Your task to perform on an android device: turn off improve location accuracy Image 0: 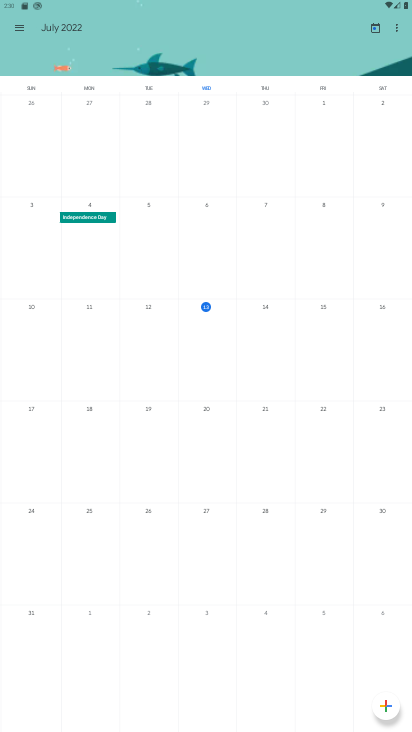
Step 0: press home button
Your task to perform on an android device: turn off improve location accuracy Image 1: 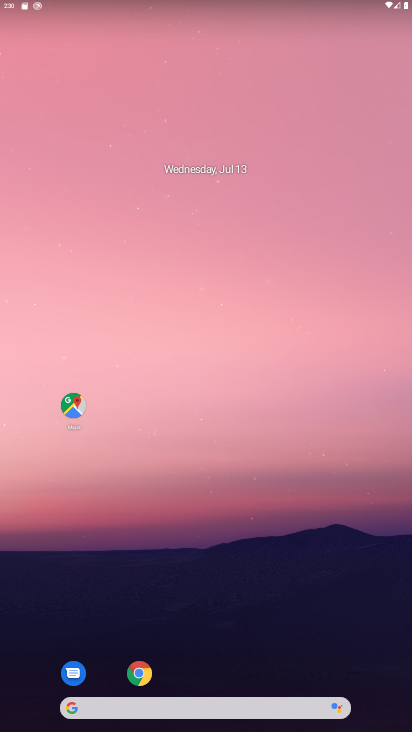
Step 1: drag from (209, 677) to (232, 159)
Your task to perform on an android device: turn off improve location accuracy Image 2: 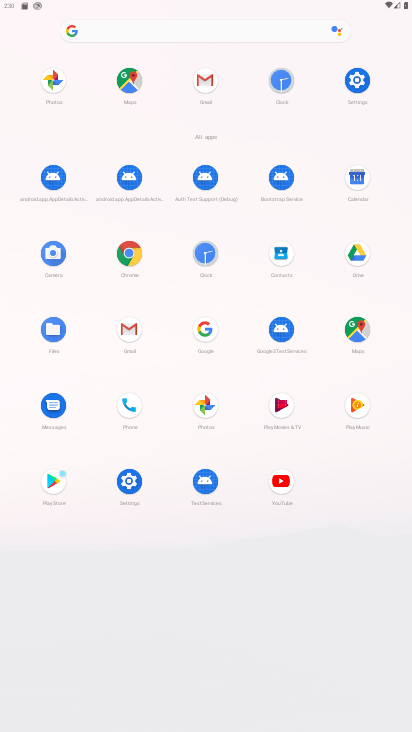
Step 2: click (132, 482)
Your task to perform on an android device: turn off improve location accuracy Image 3: 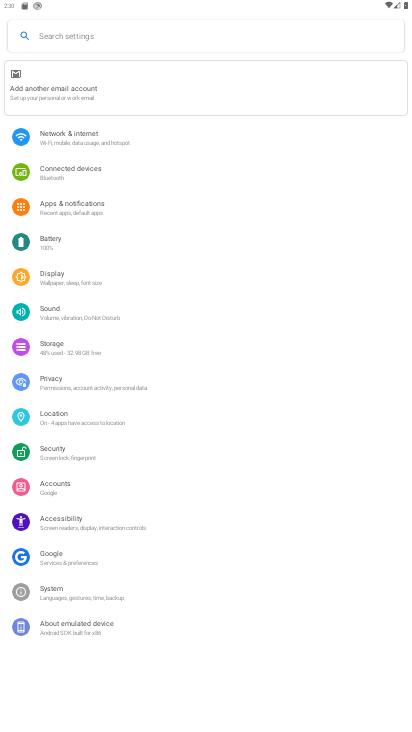
Step 3: click (81, 425)
Your task to perform on an android device: turn off improve location accuracy Image 4: 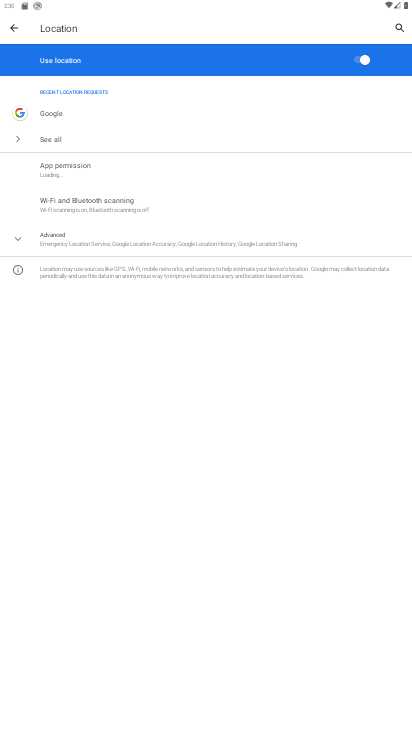
Step 4: click (113, 235)
Your task to perform on an android device: turn off improve location accuracy Image 5: 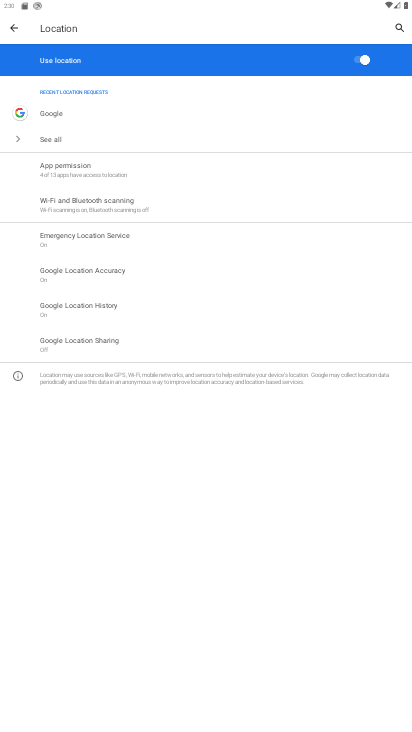
Step 5: click (118, 279)
Your task to perform on an android device: turn off improve location accuracy Image 6: 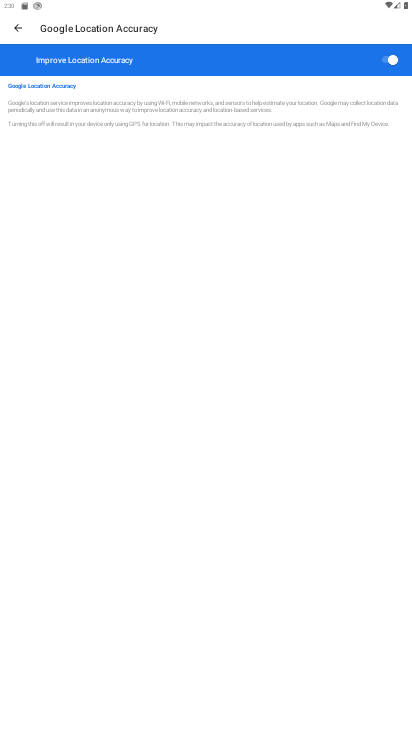
Step 6: click (383, 55)
Your task to perform on an android device: turn off improve location accuracy Image 7: 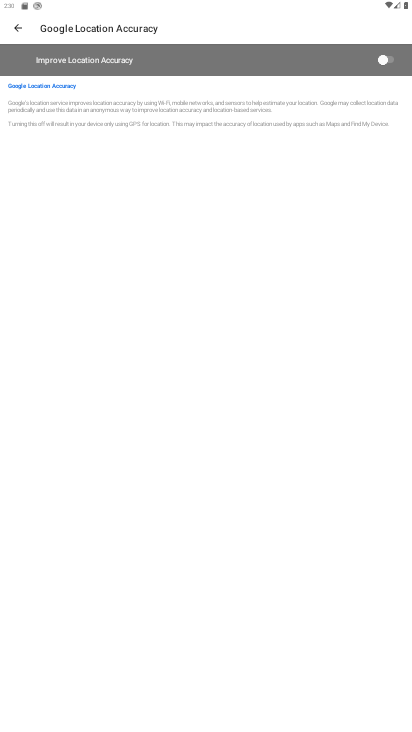
Step 7: task complete